Your task to perform on an android device: Open Google Chrome Image 0: 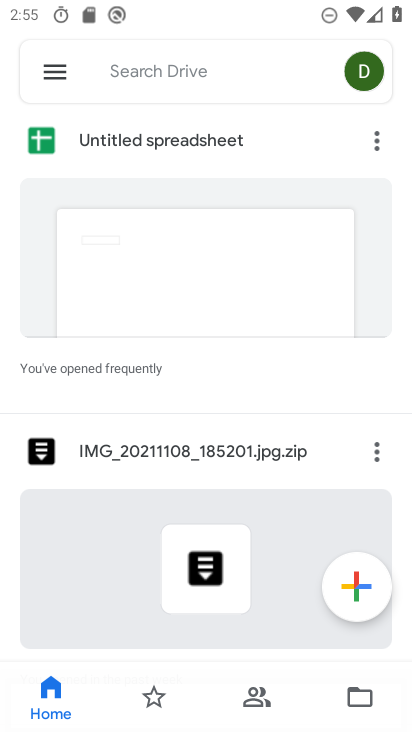
Step 0: press home button
Your task to perform on an android device: Open Google Chrome Image 1: 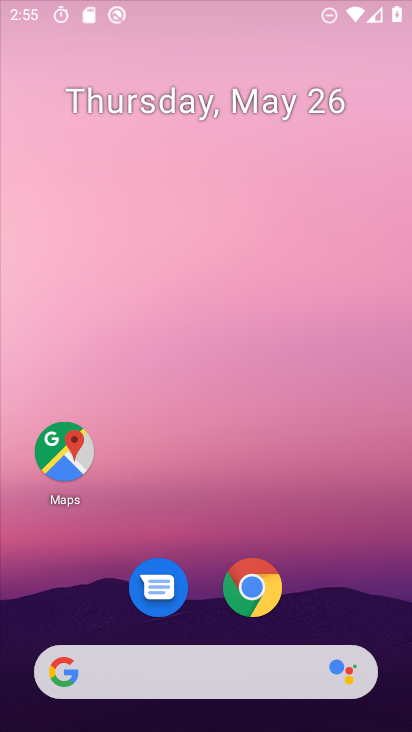
Step 1: drag from (200, 629) to (261, 192)
Your task to perform on an android device: Open Google Chrome Image 2: 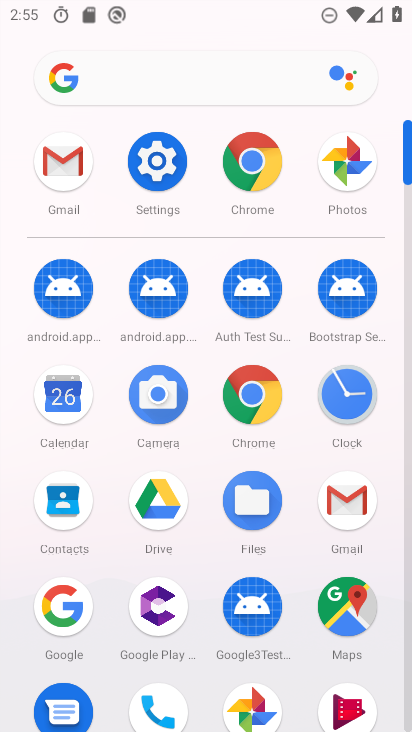
Step 2: click (251, 158)
Your task to perform on an android device: Open Google Chrome Image 3: 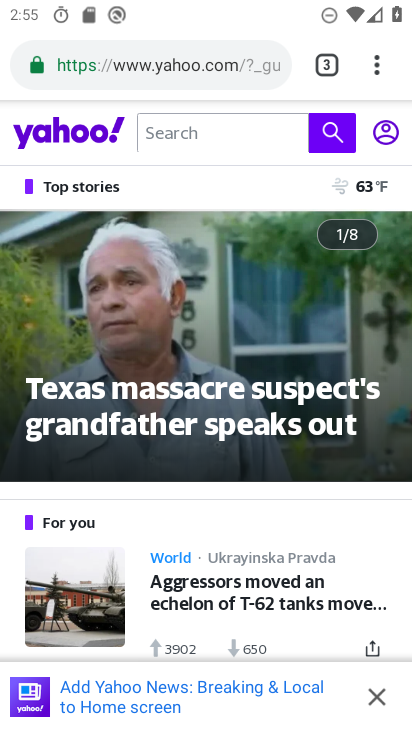
Step 3: task complete